Your task to perform on an android device: Go to accessibility settings Image 0: 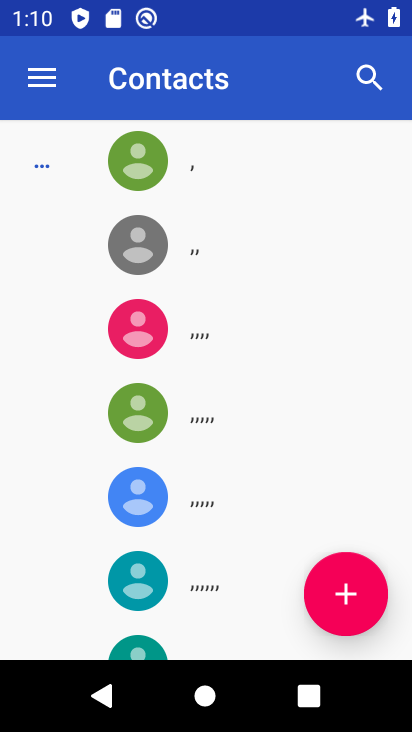
Step 0: press home button
Your task to perform on an android device: Go to accessibility settings Image 1: 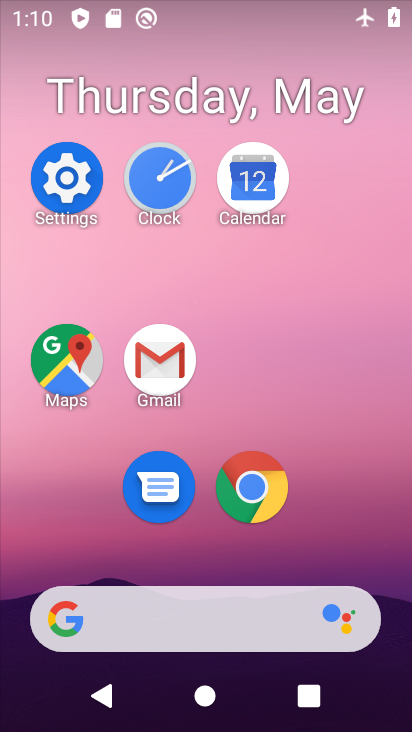
Step 1: click (77, 167)
Your task to perform on an android device: Go to accessibility settings Image 2: 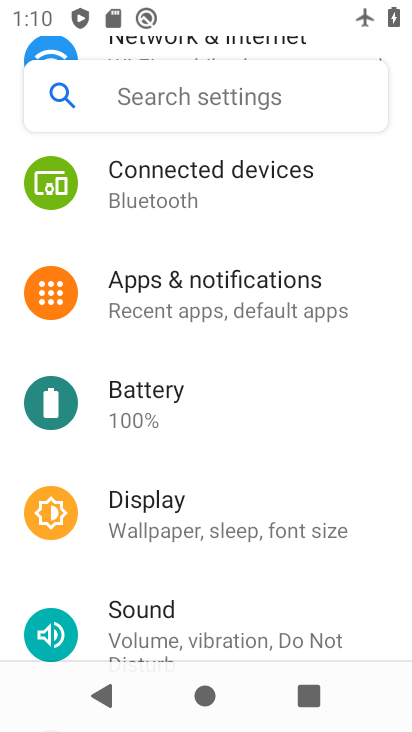
Step 2: drag from (248, 589) to (288, 163)
Your task to perform on an android device: Go to accessibility settings Image 3: 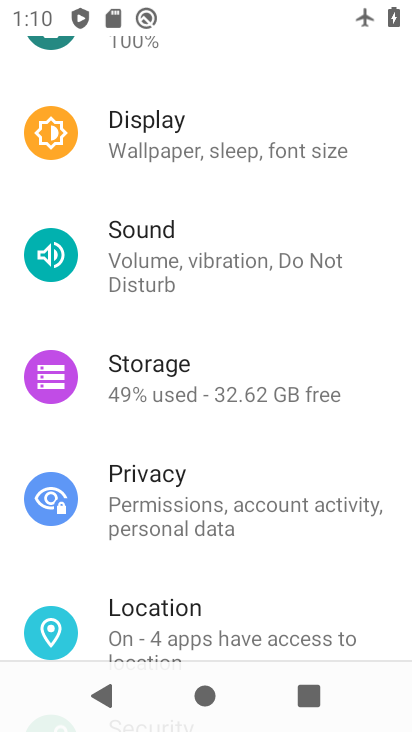
Step 3: drag from (246, 598) to (292, 153)
Your task to perform on an android device: Go to accessibility settings Image 4: 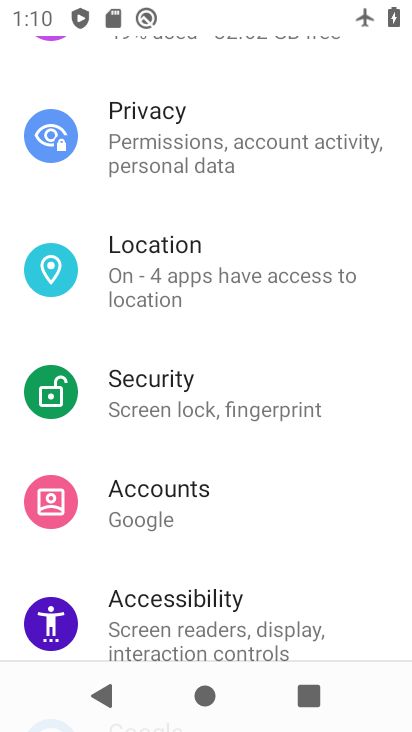
Step 4: click (271, 609)
Your task to perform on an android device: Go to accessibility settings Image 5: 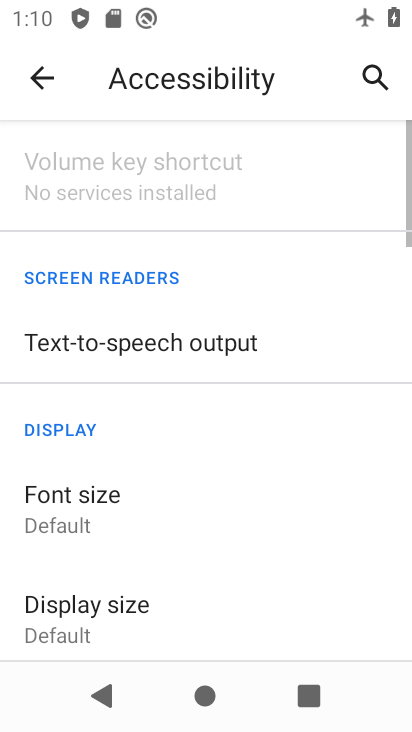
Step 5: task complete